Your task to perform on an android device: turn off picture-in-picture Image 0: 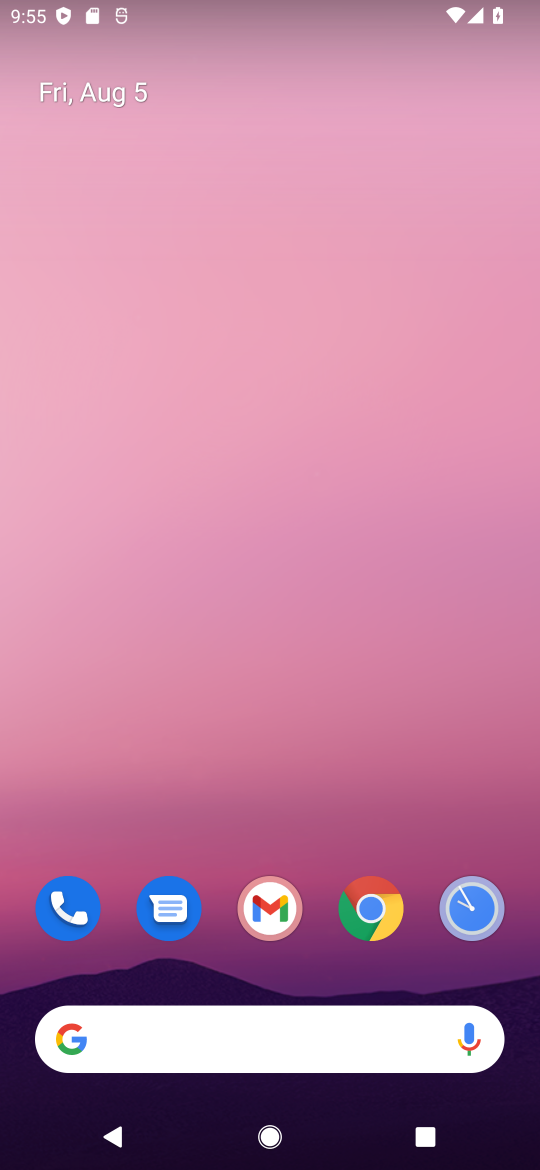
Step 0: drag from (317, 995) to (291, 331)
Your task to perform on an android device: turn off picture-in-picture Image 1: 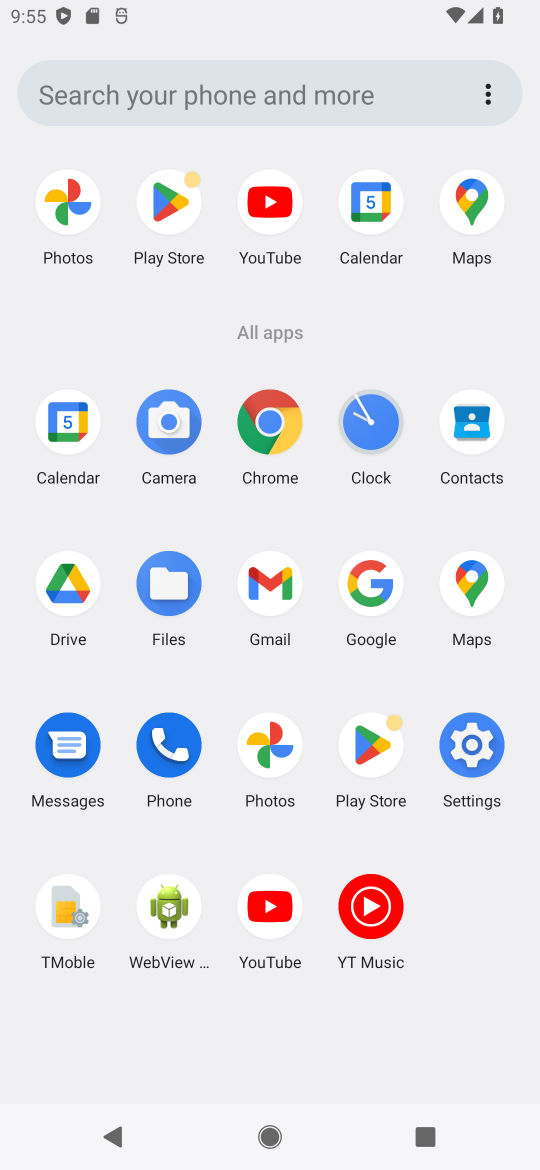
Step 1: click (469, 718)
Your task to perform on an android device: turn off picture-in-picture Image 2: 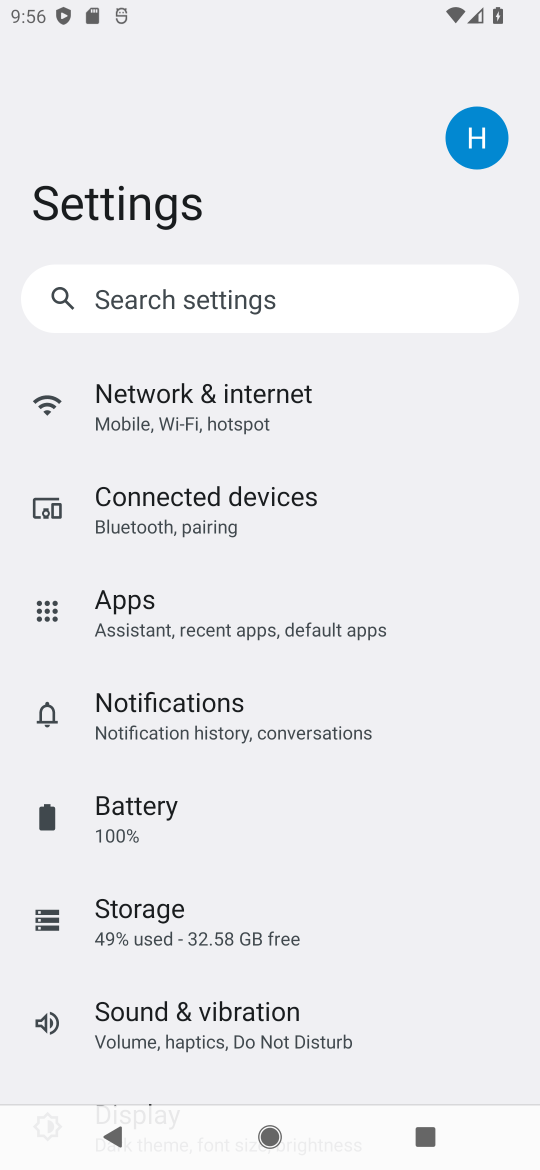
Step 2: task complete